Your task to perform on an android device: change text size in settings app Image 0: 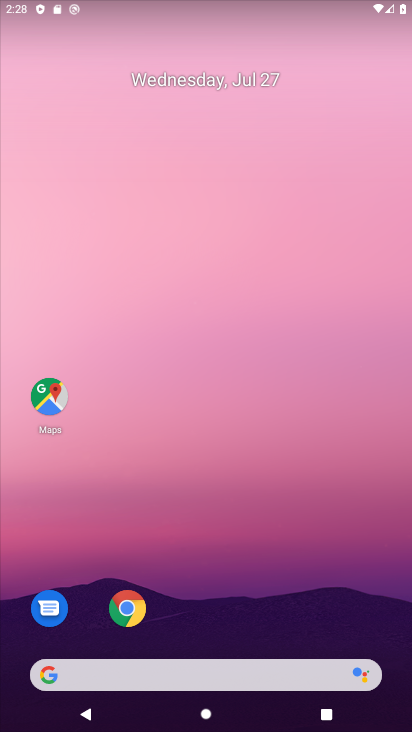
Step 0: press home button
Your task to perform on an android device: change text size in settings app Image 1: 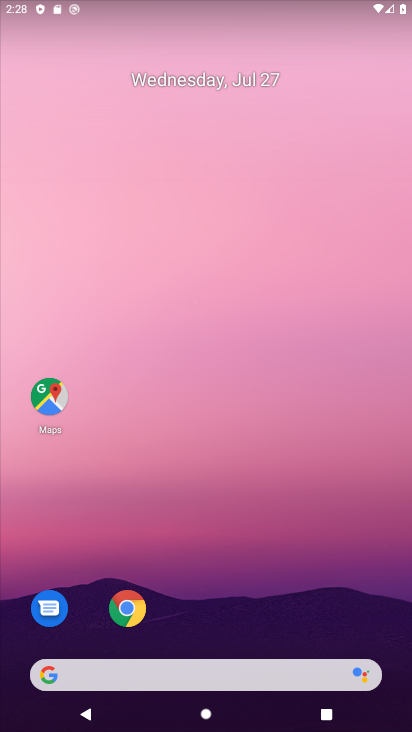
Step 1: drag from (257, 345) to (260, 8)
Your task to perform on an android device: change text size in settings app Image 2: 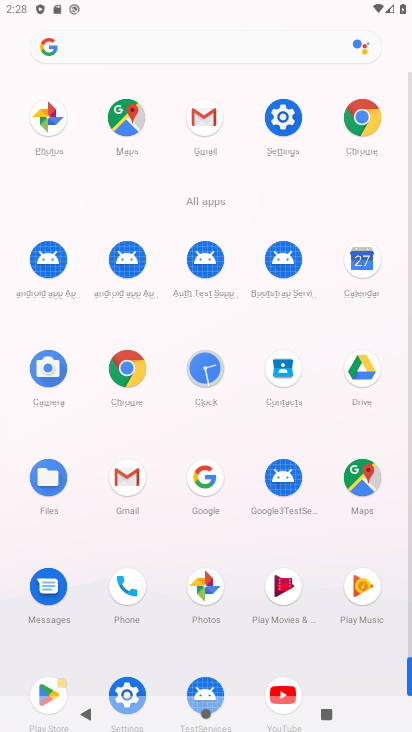
Step 2: click (271, 115)
Your task to perform on an android device: change text size in settings app Image 3: 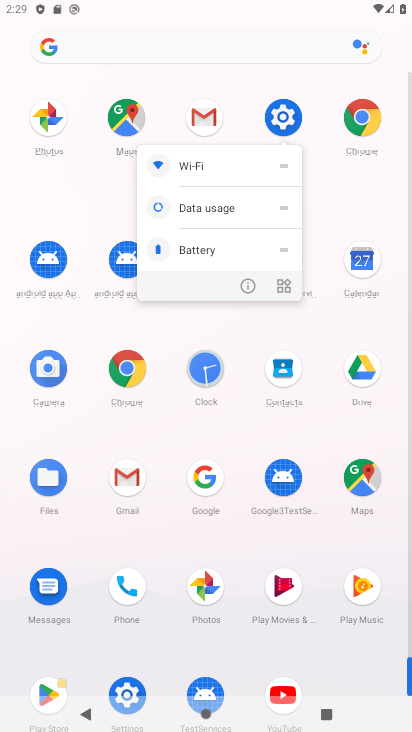
Step 3: click (276, 117)
Your task to perform on an android device: change text size in settings app Image 4: 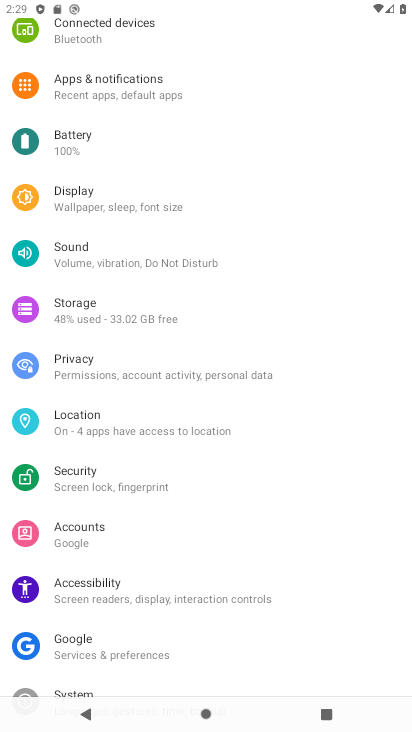
Step 4: click (79, 186)
Your task to perform on an android device: change text size in settings app Image 5: 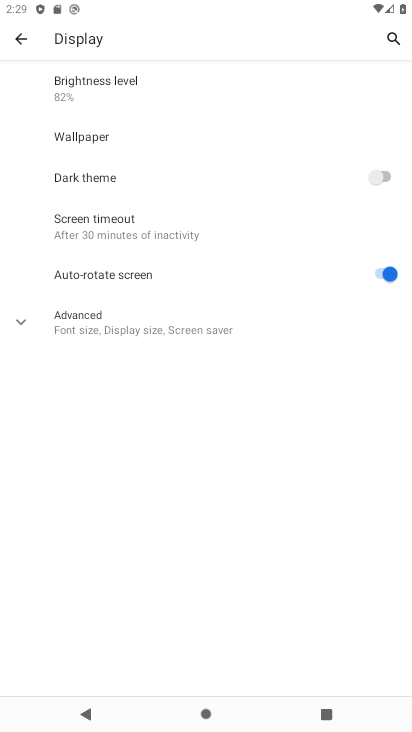
Step 5: click (20, 323)
Your task to perform on an android device: change text size in settings app Image 6: 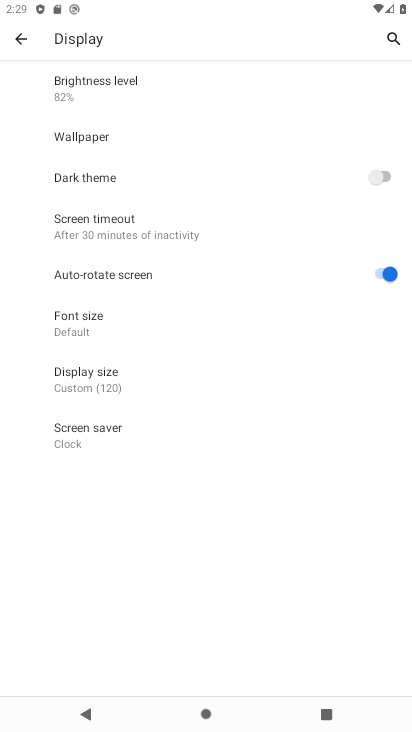
Step 6: click (66, 330)
Your task to perform on an android device: change text size in settings app Image 7: 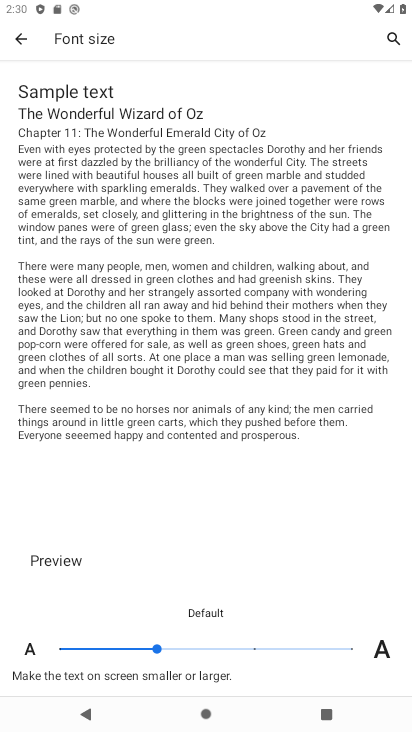
Step 7: click (347, 646)
Your task to perform on an android device: change text size in settings app Image 8: 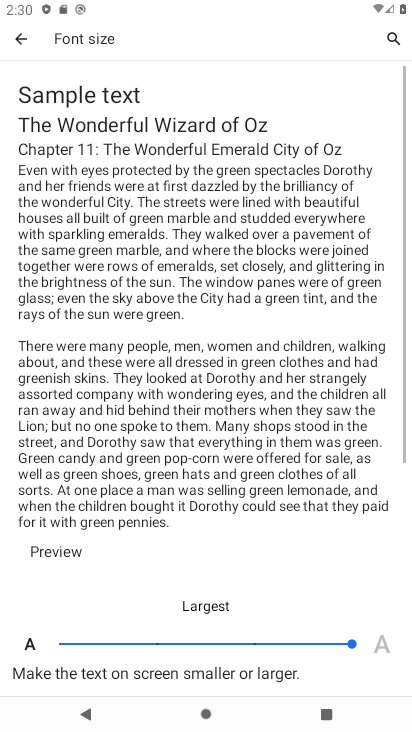
Step 8: task complete